Your task to perform on an android device: change notification settings in the gmail app Image 0: 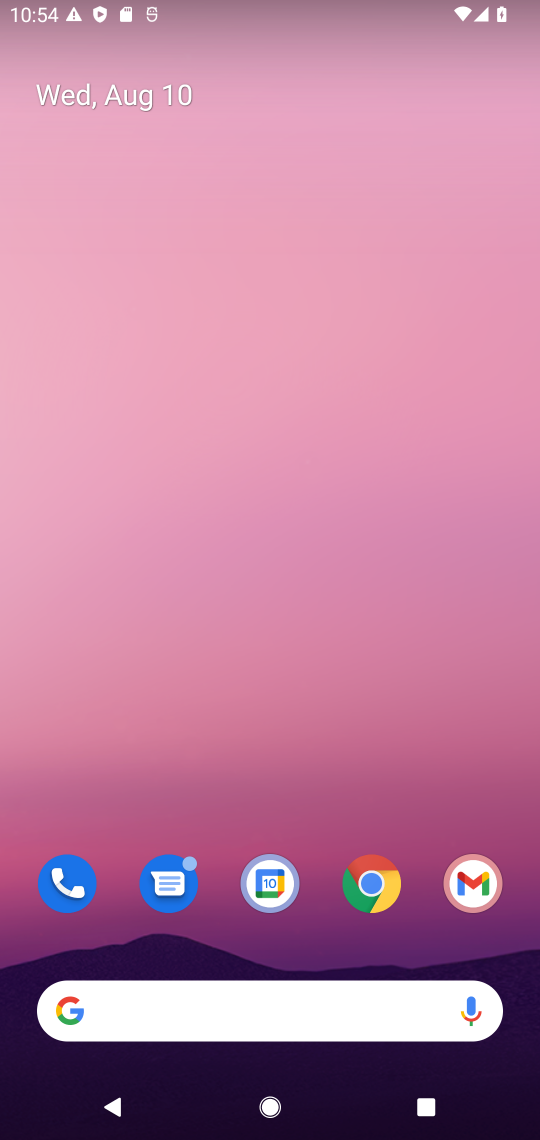
Step 0: drag from (317, 917) to (311, 174)
Your task to perform on an android device: change notification settings in the gmail app Image 1: 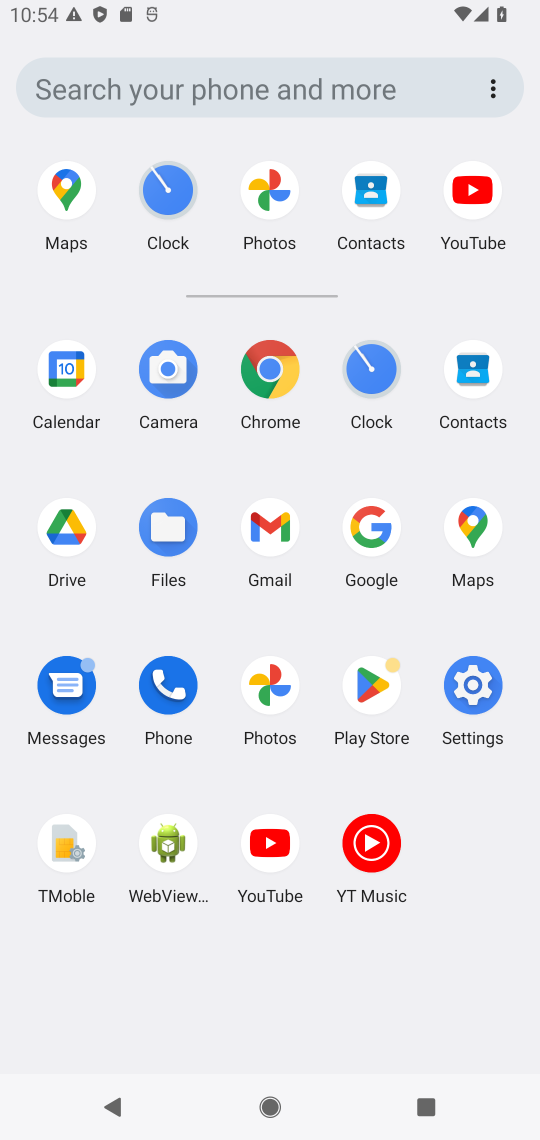
Step 1: click (474, 685)
Your task to perform on an android device: change notification settings in the gmail app Image 2: 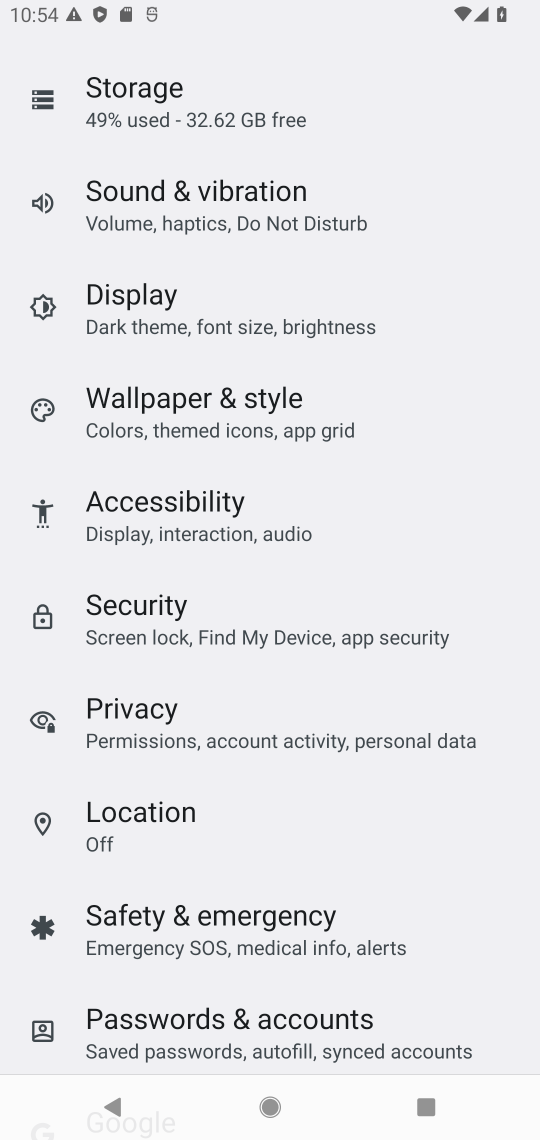
Step 2: press home button
Your task to perform on an android device: change notification settings in the gmail app Image 3: 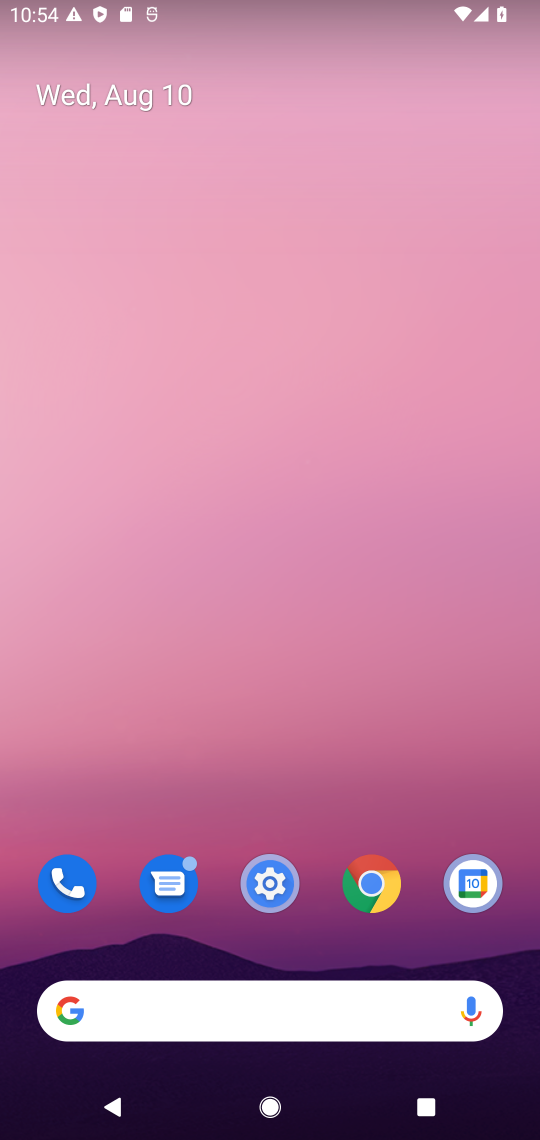
Step 3: drag from (316, 924) to (312, 208)
Your task to perform on an android device: change notification settings in the gmail app Image 4: 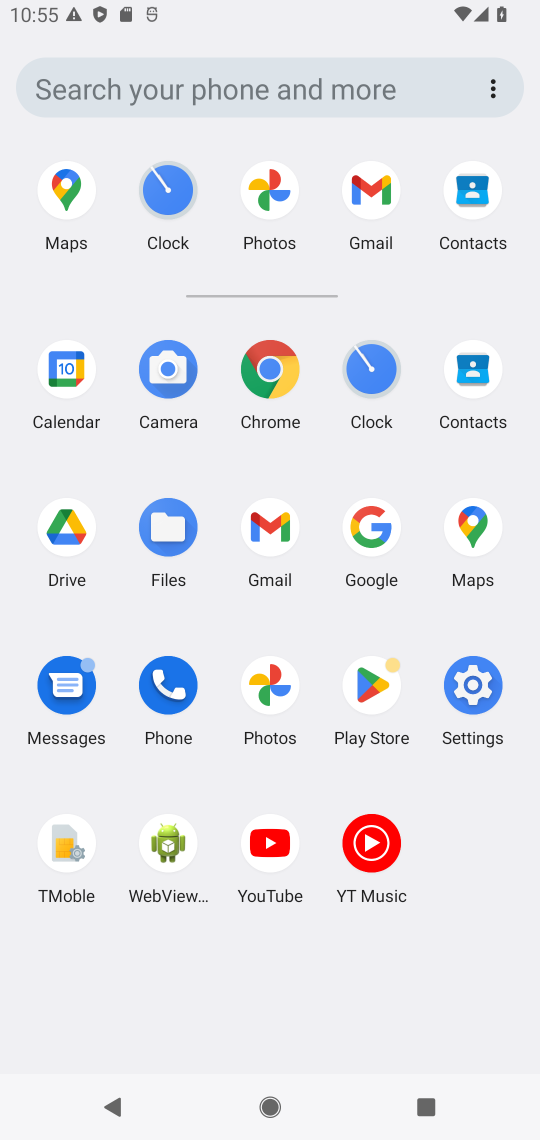
Step 4: click (275, 522)
Your task to perform on an android device: change notification settings in the gmail app Image 5: 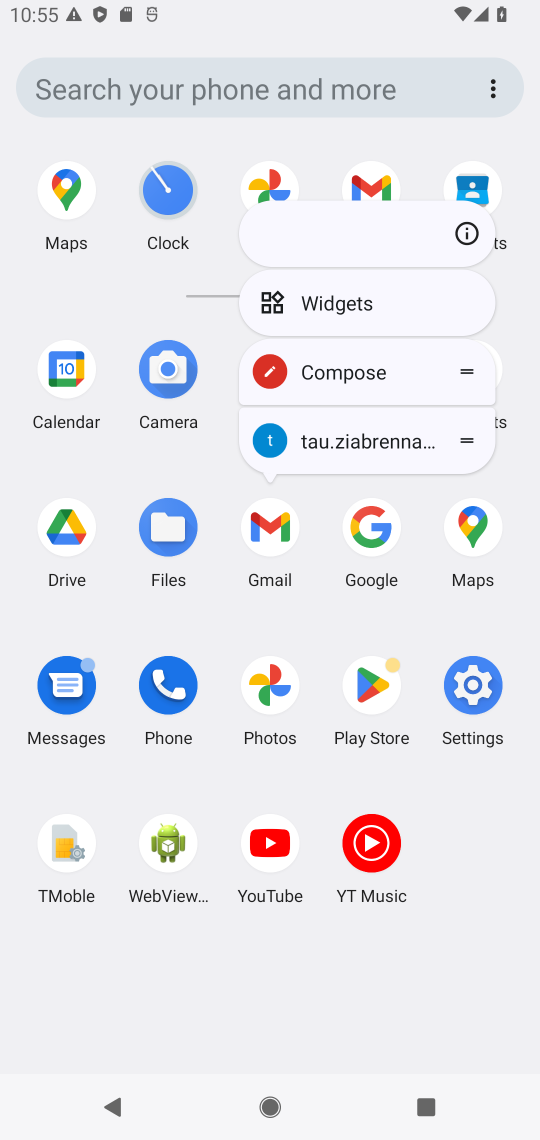
Step 5: click (466, 225)
Your task to perform on an android device: change notification settings in the gmail app Image 6: 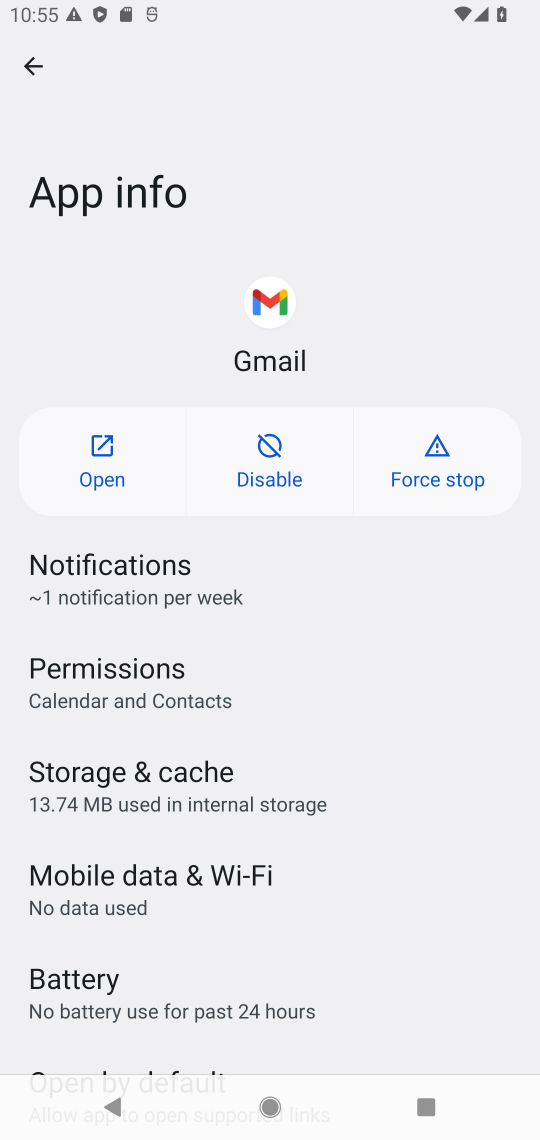
Step 6: click (153, 586)
Your task to perform on an android device: change notification settings in the gmail app Image 7: 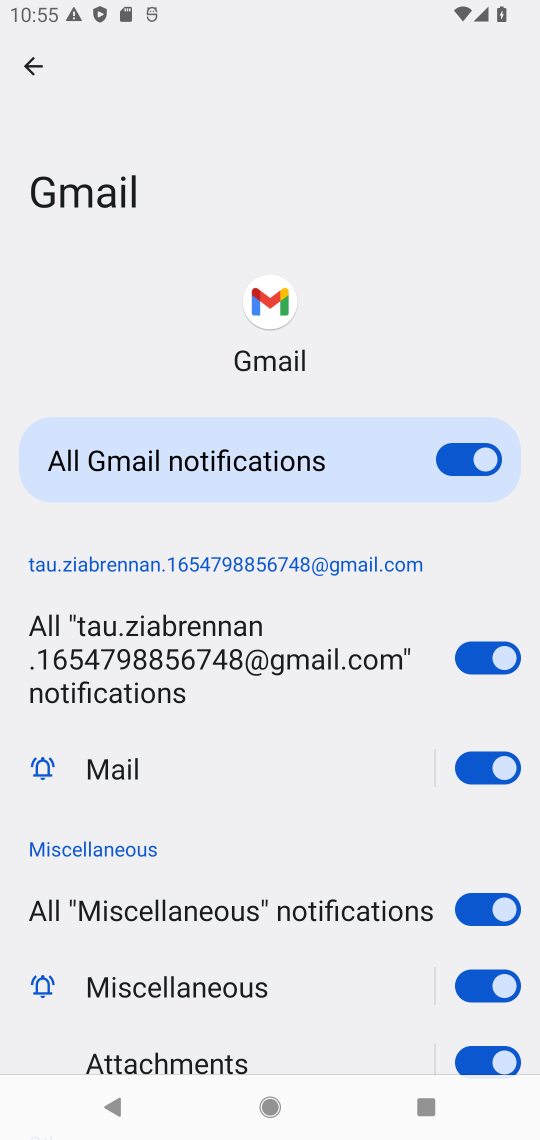
Step 7: click (359, 669)
Your task to perform on an android device: change notification settings in the gmail app Image 8: 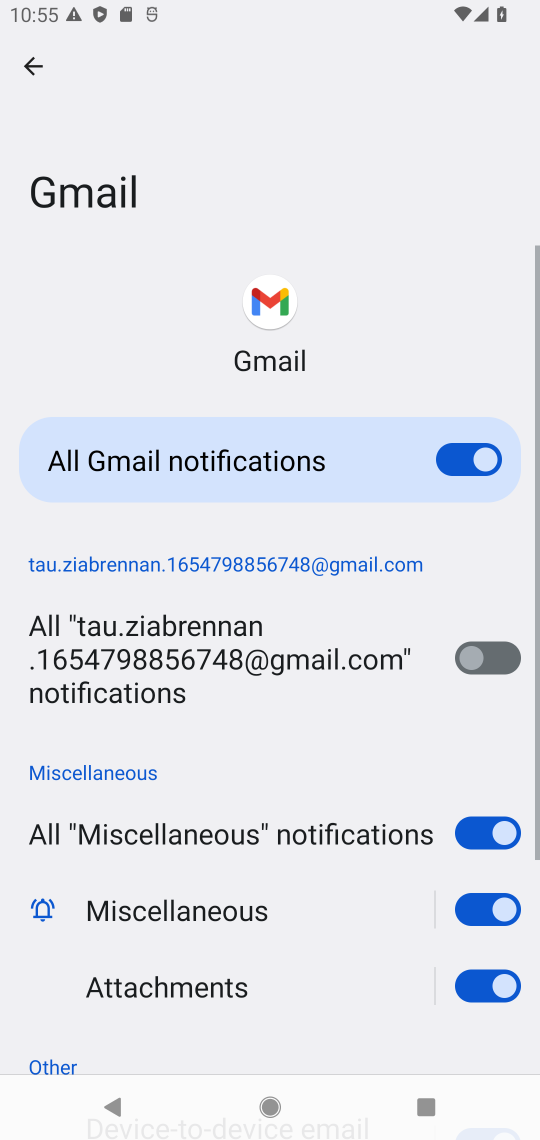
Step 8: task complete